Your task to perform on an android device: open app "Messenger Lite" (install if not already installed) and go to login screen Image 0: 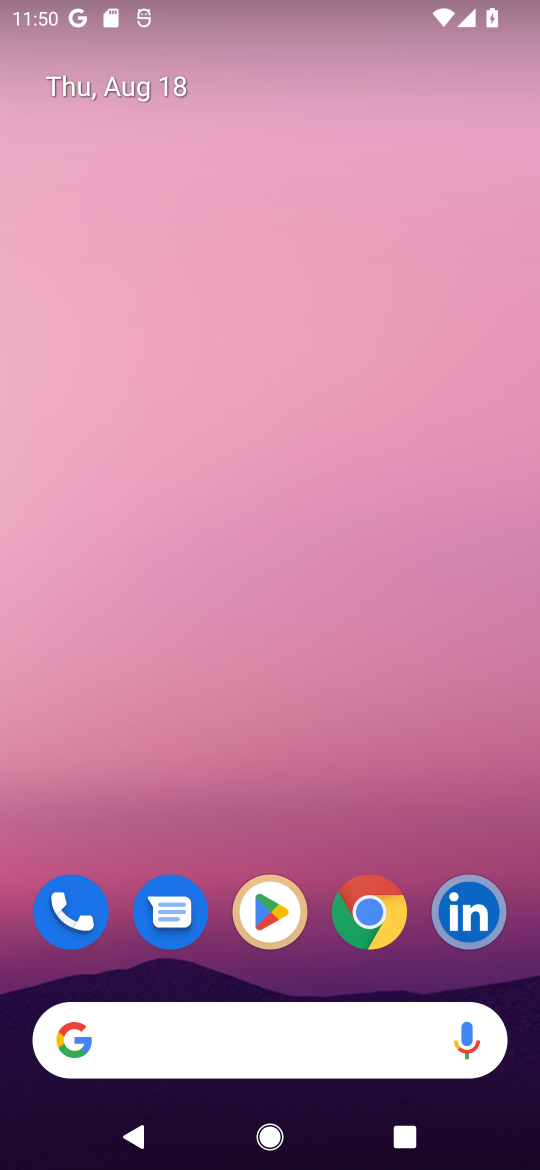
Step 0: click (279, 902)
Your task to perform on an android device: open app "Messenger Lite" (install if not already installed) and go to login screen Image 1: 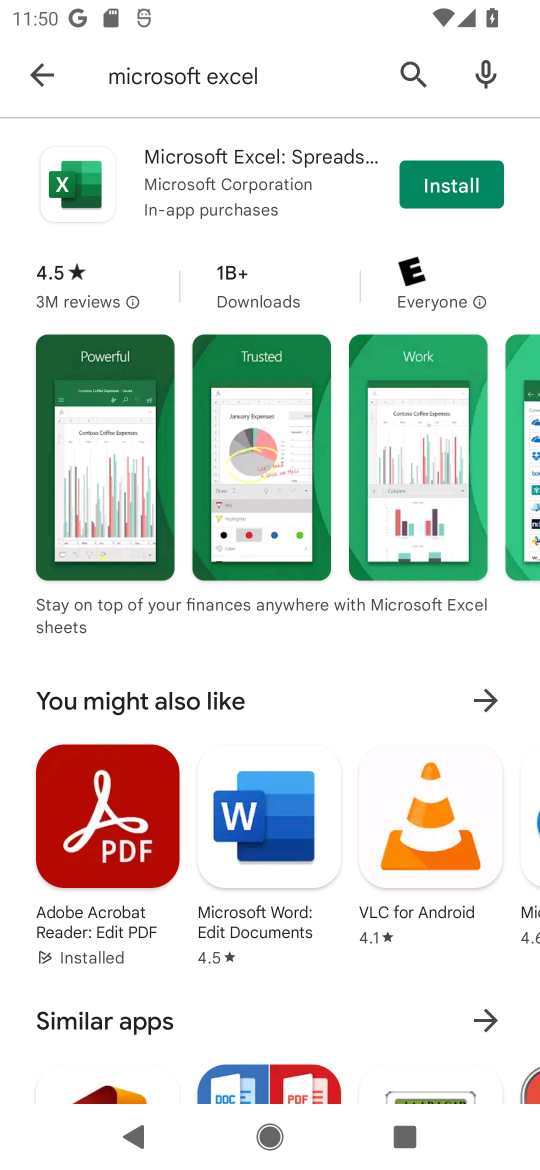
Step 1: click (407, 79)
Your task to perform on an android device: open app "Messenger Lite" (install if not already installed) and go to login screen Image 2: 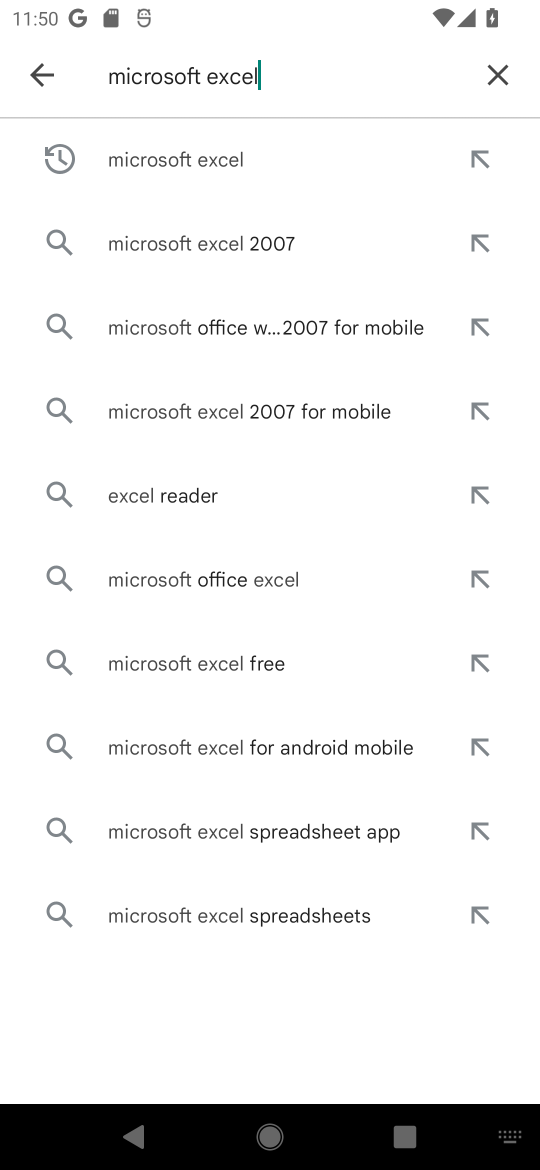
Step 2: click (483, 74)
Your task to perform on an android device: open app "Messenger Lite" (install if not already installed) and go to login screen Image 3: 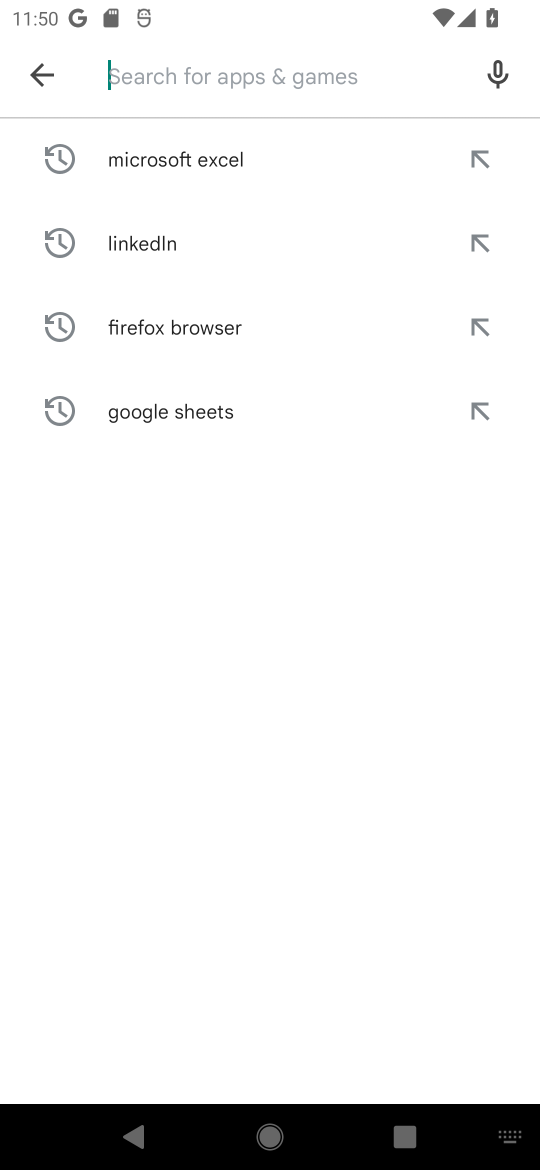
Step 3: click (163, 84)
Your task to perform on an android device: open app "Messenger Lite" (install if not already installed) and go to login screen Image 4: 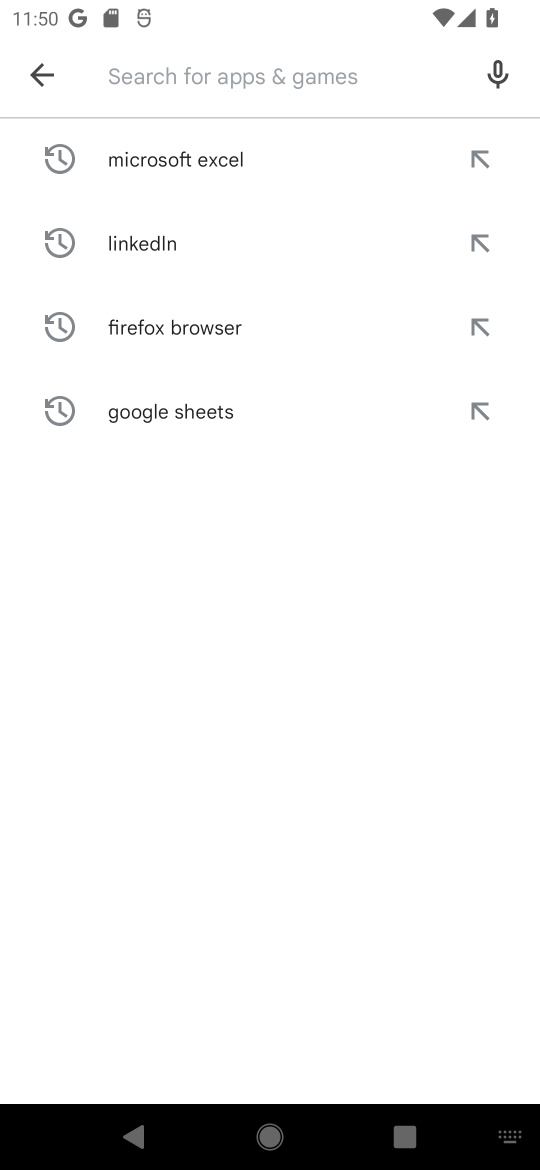
Step 4: type "Messenger Lite"
Your task to perform on an android device: open app "Messenger Lite" (install if not already installed) and go to login screen Image 5: 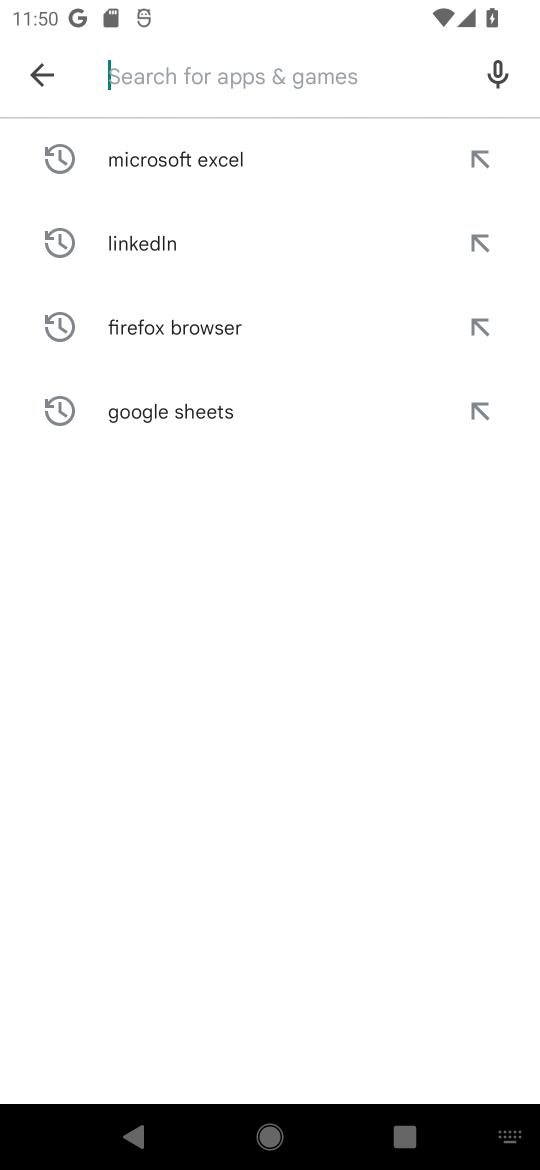
Step 5: click (257, 668)
Your task to perform on an android device: open app "Messenger Lite" (install if not already installed) and go to login screen Image 6: 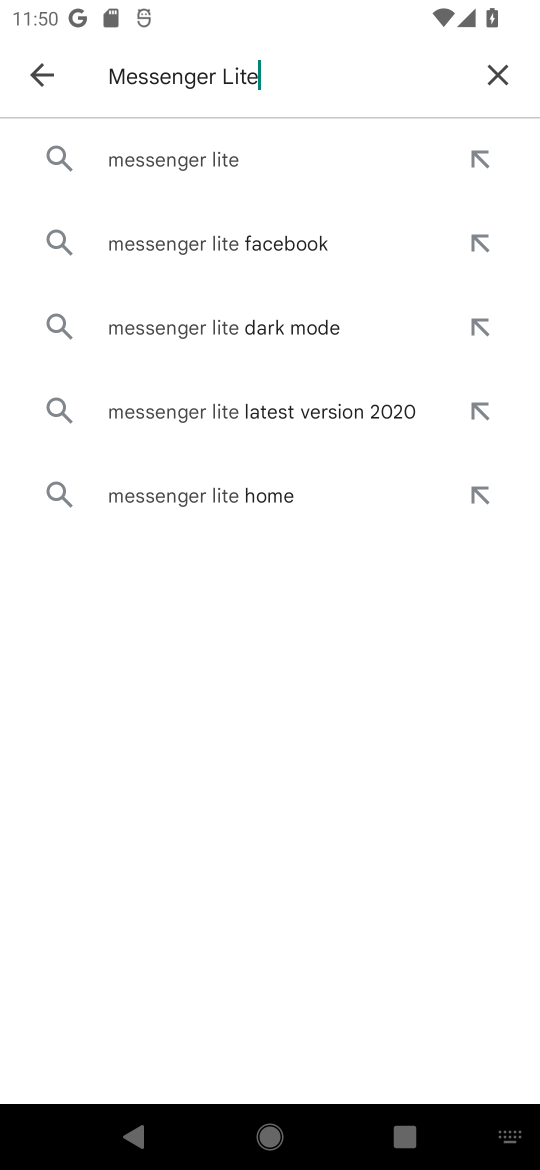
Step 6: click (201, 146)
Your task to perform on an android device: open app "Messenger Lite" (install if not already installed) and go to login screen Image 7: 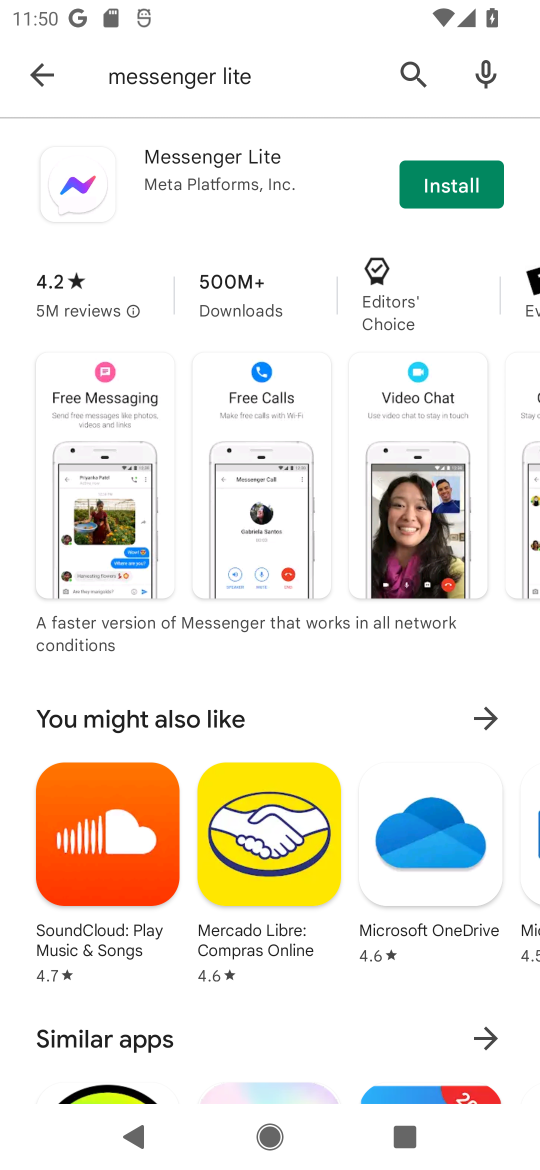
Step 7: click (442, 189)
Your task to perform on an android device: open app "Messenger Lite" (install if not already installed) and go to login screen Image 8: 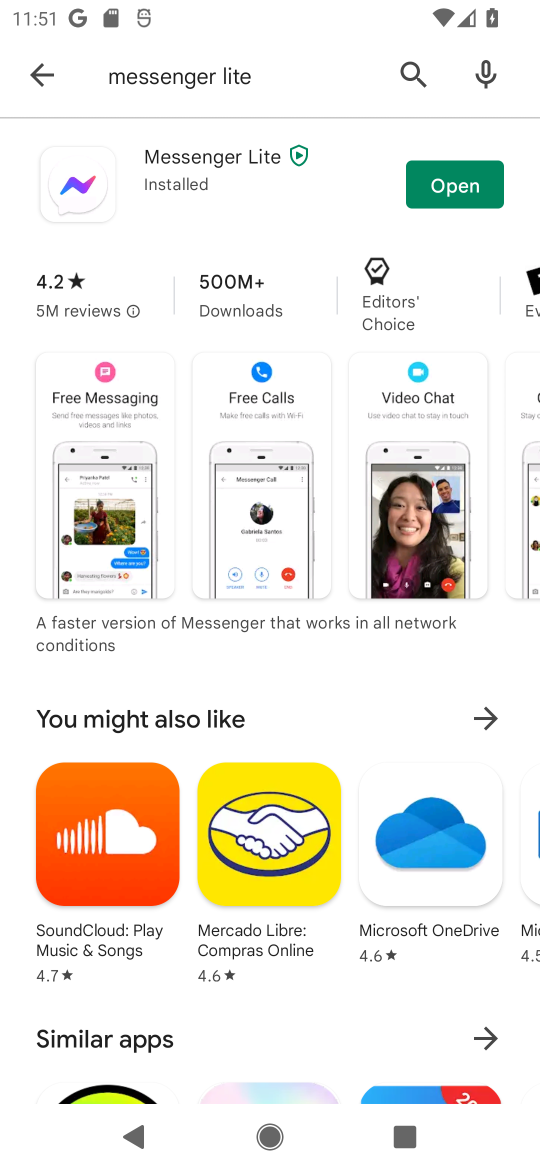
Step 8: click (445, 172)
Your task to perform on an android device: open app "Messenger Lite" (install if not already installed) and go to login screen Image 9: 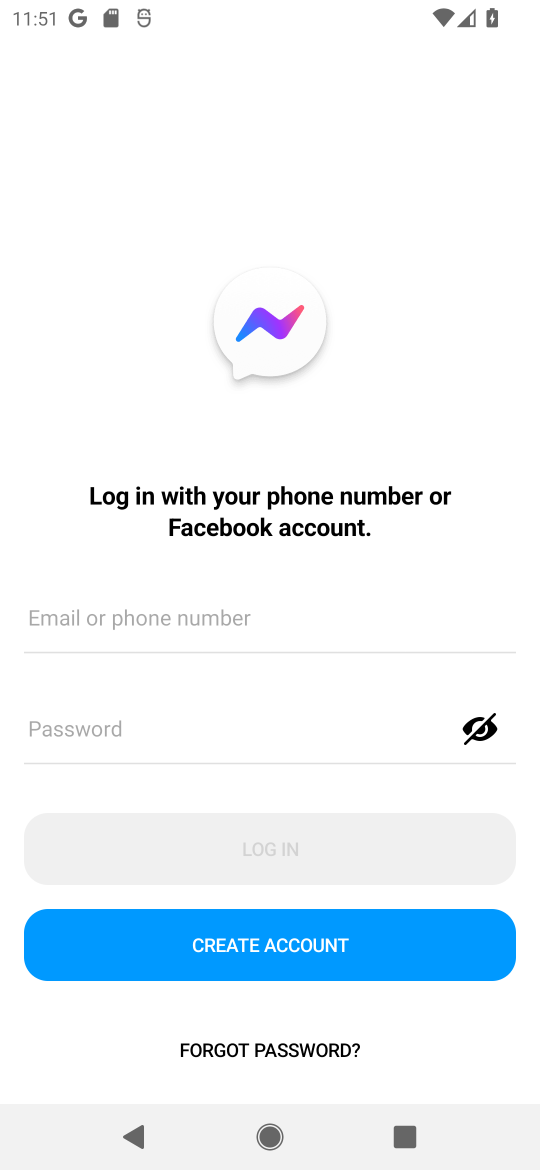
Step 9: task complete